Your task to perform on an android device: Search for Mexican restaurants on Maps Image 0: 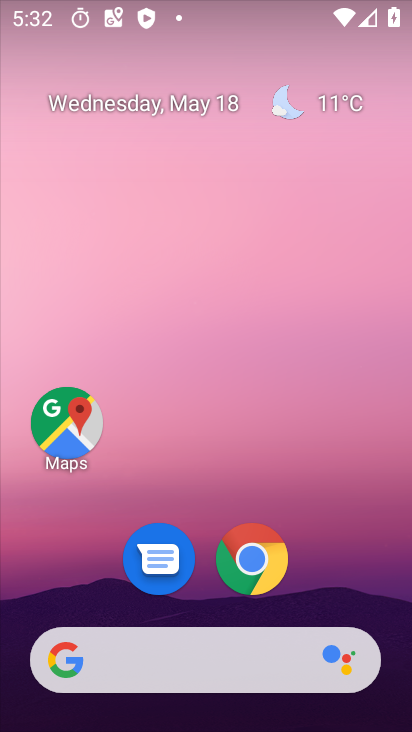
Step 0: click (78, 429)
Your task to perform on an android device: Search for Mexican restaurants on Maps Image 1: 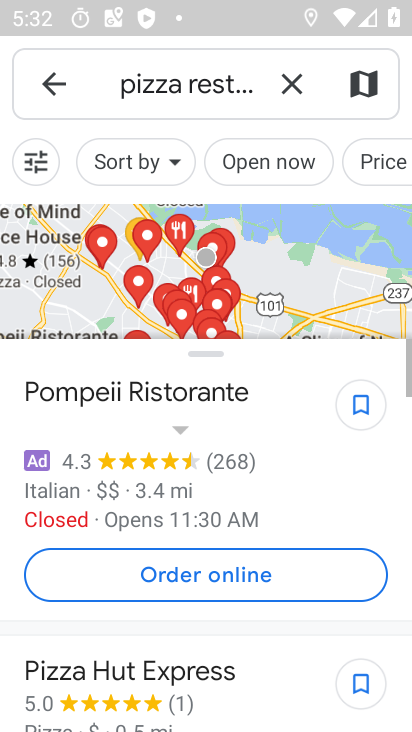
Step 1: click (292, 77)
Your task to perform on an android device: Search for Mexican restaurants on Maps Image 2: 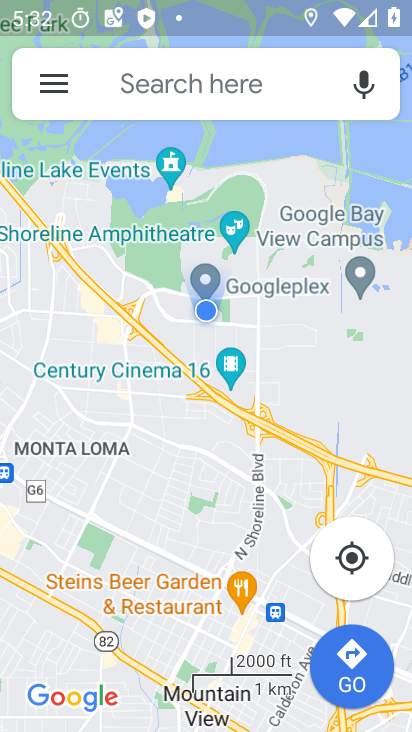
Step 2: click (147, 85)
Your task to perform on an android device: Search for Mexican restaurants on Maps Image 3: 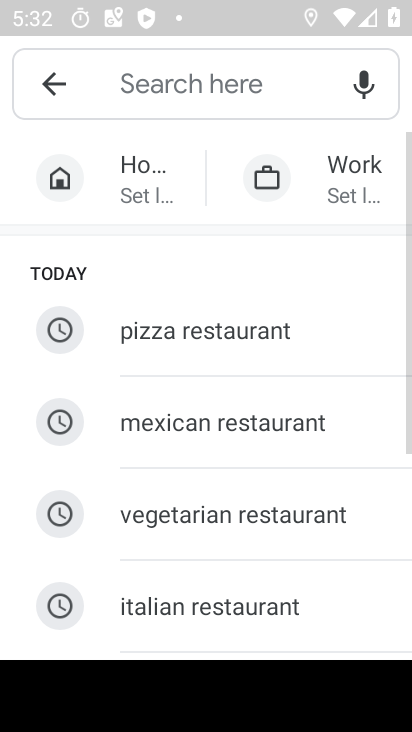
Step 3: click (190, 401)
Your task to perform on an android device: Search for Mexican restaurants on Maps Image 4: 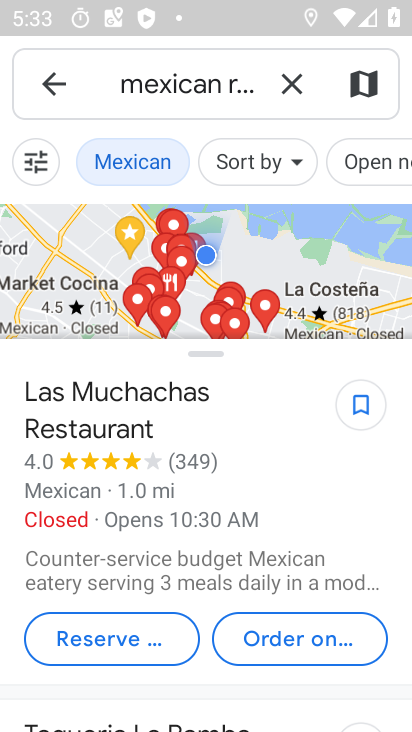
Step 4: task complete